Your task to perform on an android device: toggle improve location accuracy Image 0: 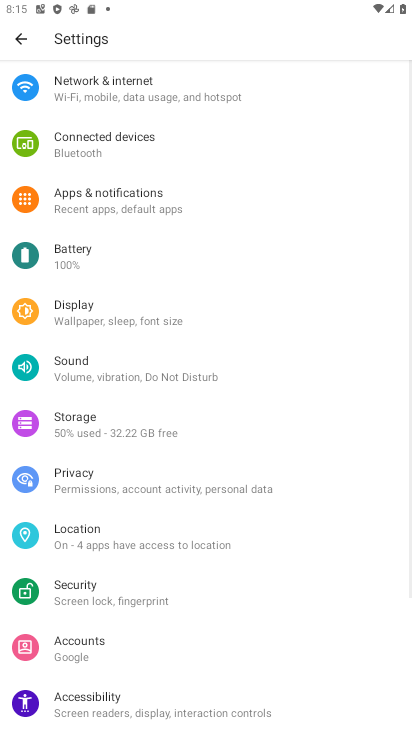
Step 0: press home button
Your task to perform on an android device: toggle improve location accuracy Image 1: 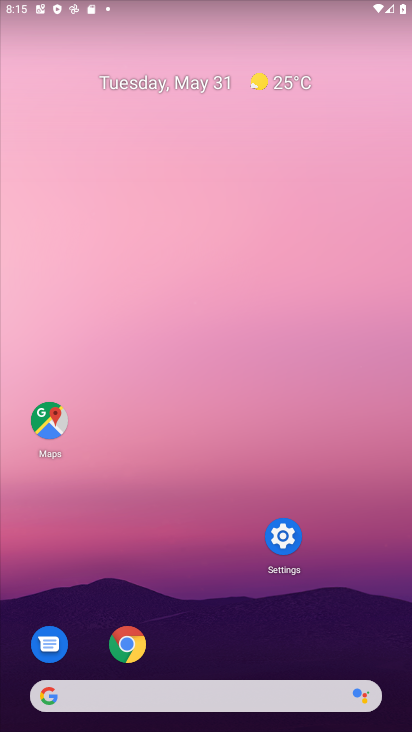
Step 1: drag from (178, 717) to (191, 371)
Your task to perform on an android device: toggle improve location accuracy Image 2: 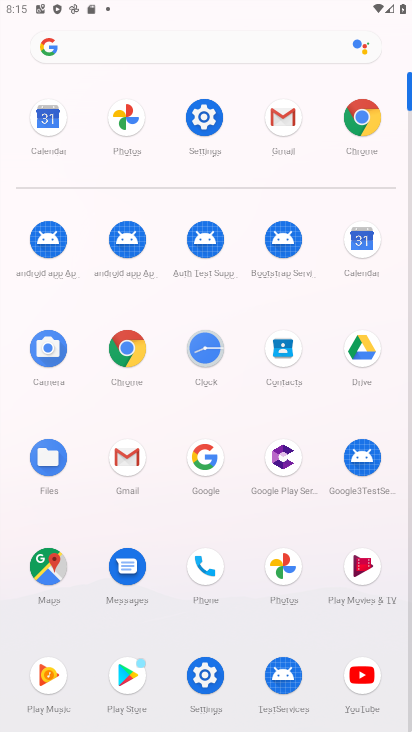
Step 2: click (202, 136)
Your task to perform on an android device: toggle improve location accuracy Image 3: 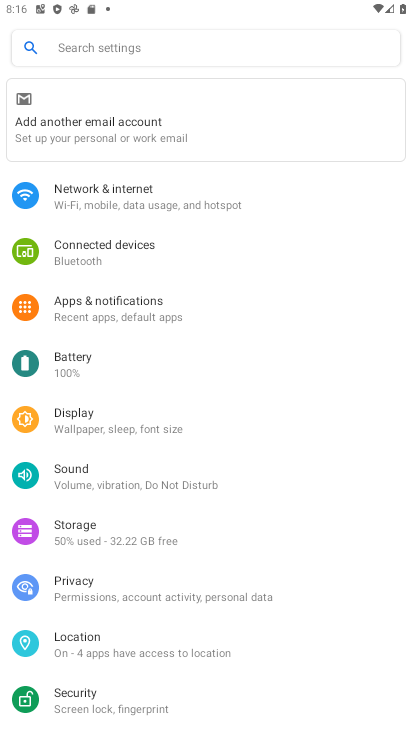
Step 3: click (86, 641)
Your task to perform on an android device: toggle improve location accuracy Image 4: 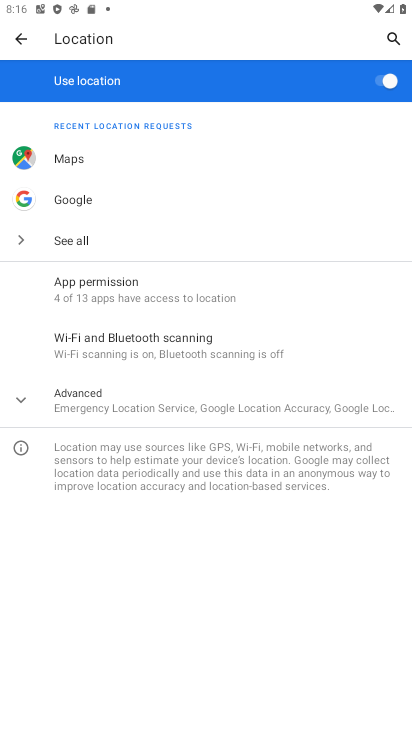
Step 4: click (31, 400)
Your task to perform on an android device: toggle improve location accuracy Image 5: 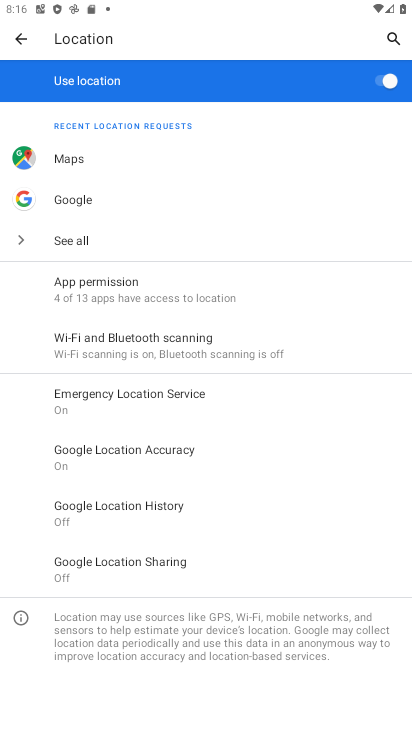
Step 5: click (135, 438)
Your task to perform on an android device: toggle improve location accuracy Image 6: 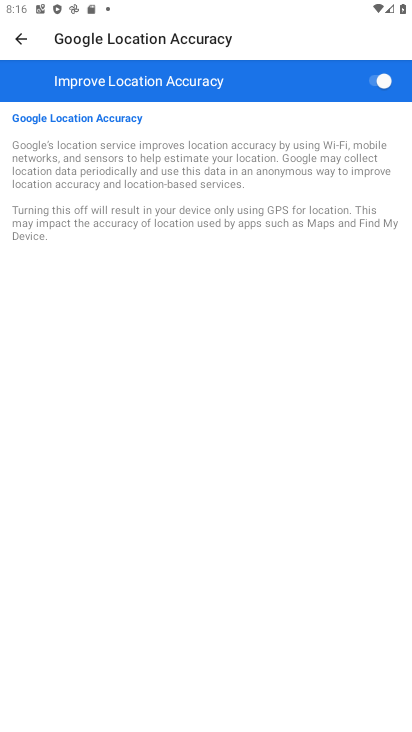
Step 6: task complete